Your task to perform on an android device: turn on notifications settings in the gmail app Image 0: 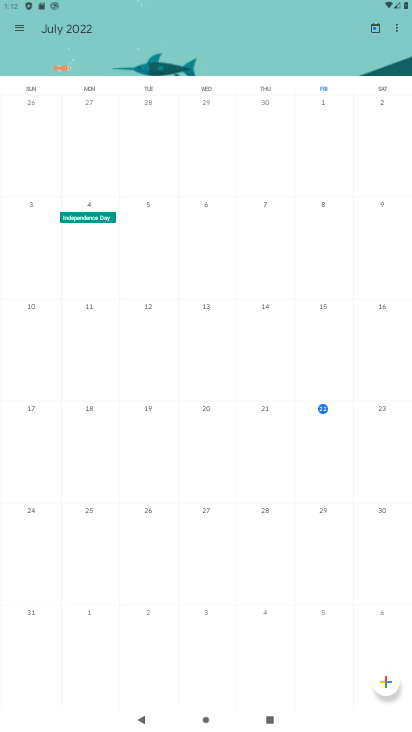
Step 0: press home button
Your task to perform on an android device: turn on notifications settings in the gmail app Image 1: 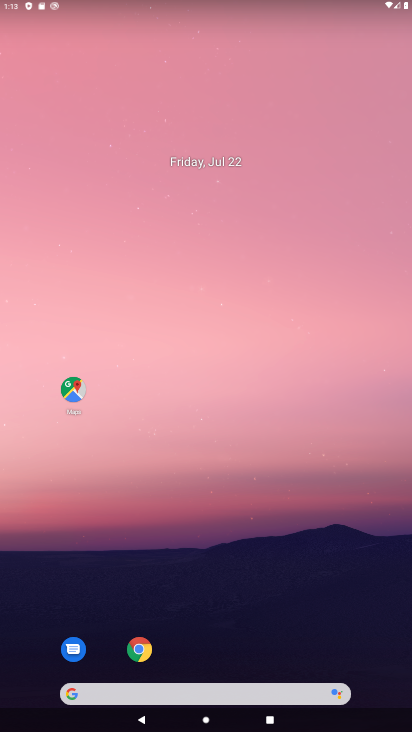
Step 1: drag from (330, 588) to (228, 109)
Your task to perform on an android device: turn on notifications settings in the gmail app Image 2: 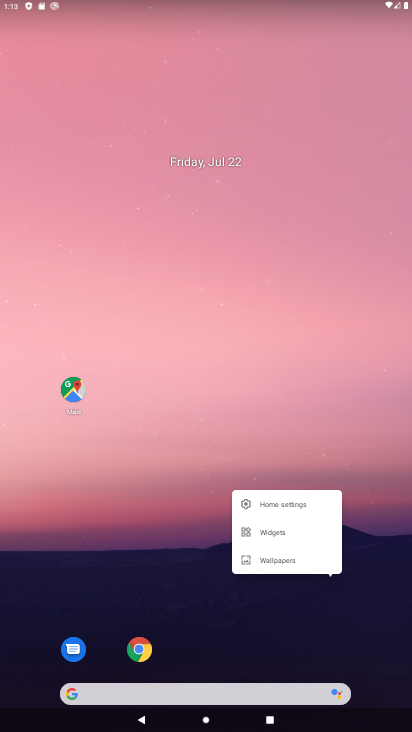
Step 2: drag from (310, 402) to (247, 196)
Your task to perform on an android device: turn on notifications settings in the gmail app Image 3: 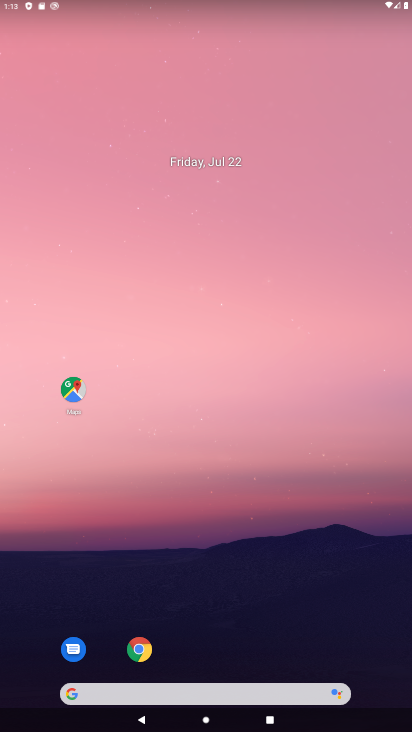
Step 3: drag from (269, 532) to (182, 4)
Your task to perform on an android device: turn on notifications settings in the gmail app Image 4: 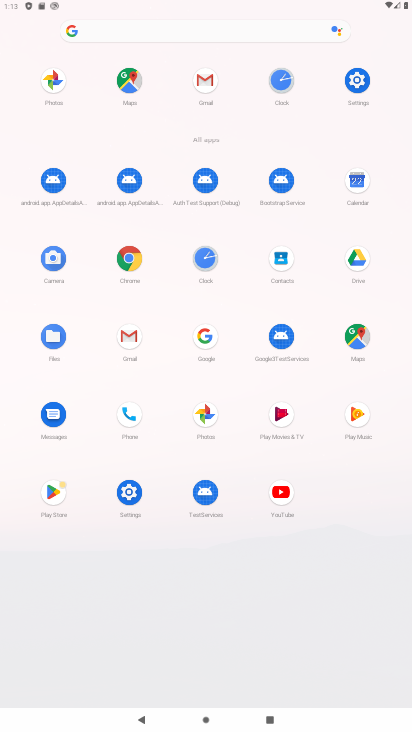
Step 4: click (129, 336)
Your task to perform on an android device: turn on notifications settings in the gmail app Image 5: 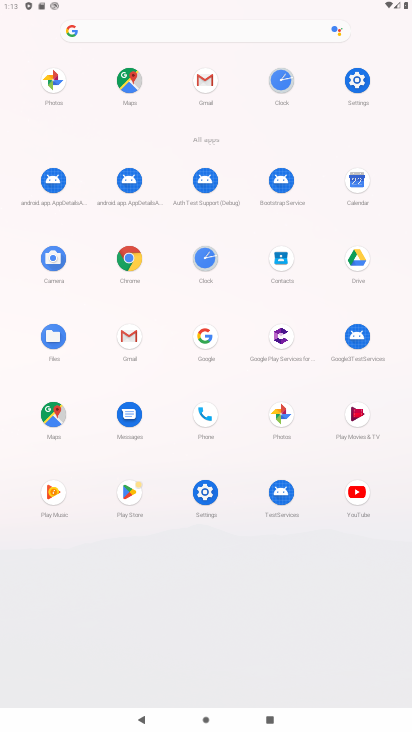
Step 5: click (131, 340)
Your task to perform on an android device: turn on notifications settings in the gmail app Image 6: 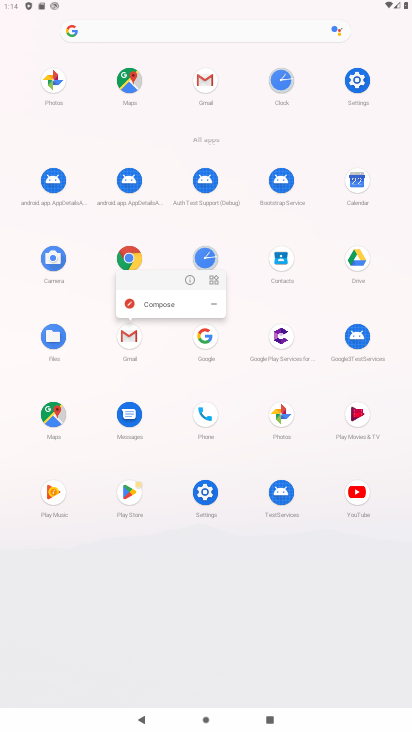
Step 6: click (186, 278)
Your task to perform on an android device: turn on notifications settings in the gmail app Image 7: 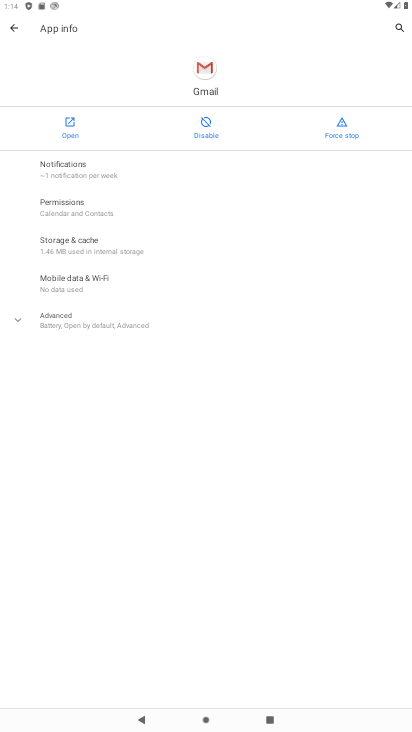
Step 7: click (88, 166)
Your task to perform on an android device: turn on notifications settings in the gmail app Image 8: 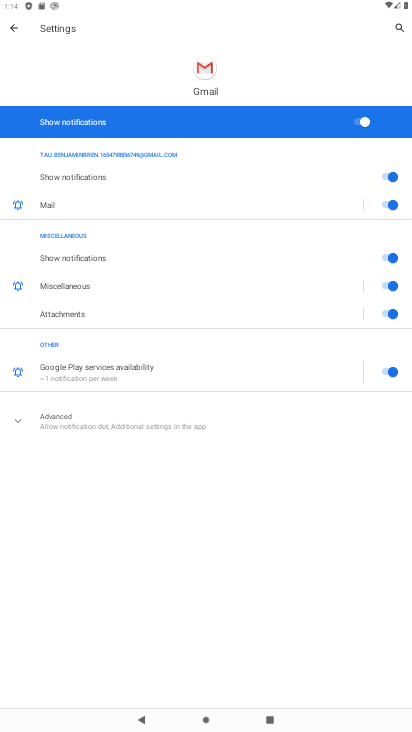
Step 8: task complete